Your task to perform on an android device: turn off data saver in the chrome app Image 0: 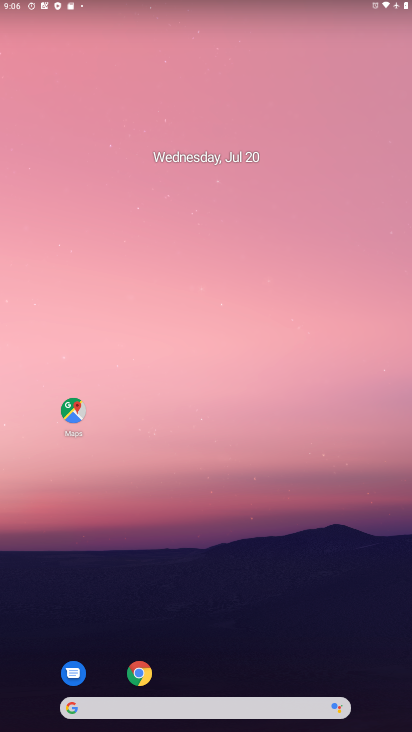
Step 0: drag from (224, 684) to (235, 38)
Your task to perform on an android device: turn off data saver in the chrome app Image 1: 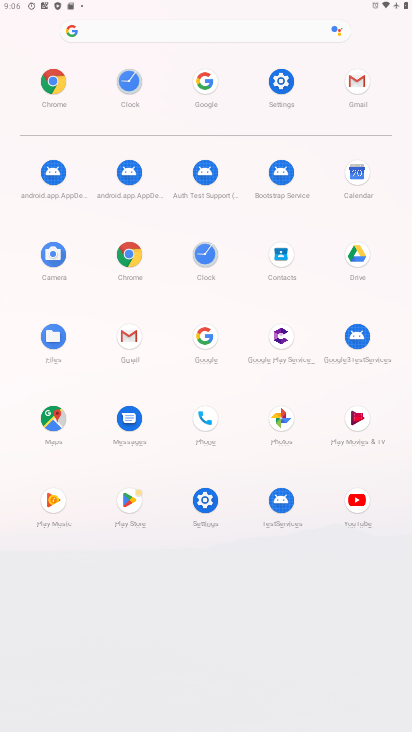
Step 1: click (127, 249)
Your task to perform on an android device: turn off data saver in the chrome app Image 2: 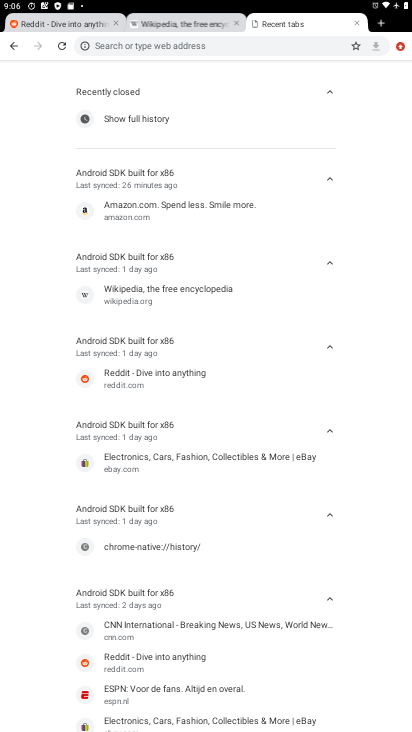
Step 2: click (399, 50)
Your task to perform on an android device: turn off data saver in the chrome app Image 3: 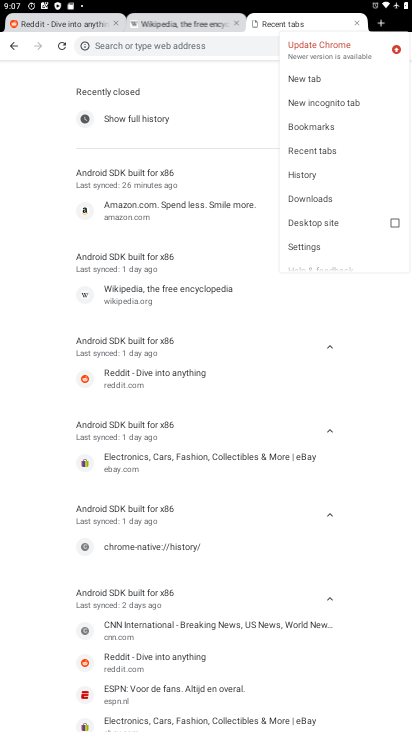
Step 3: click (304, 250)
Your task to perform on an android device: turn off data saver in the chrome app Image 4: 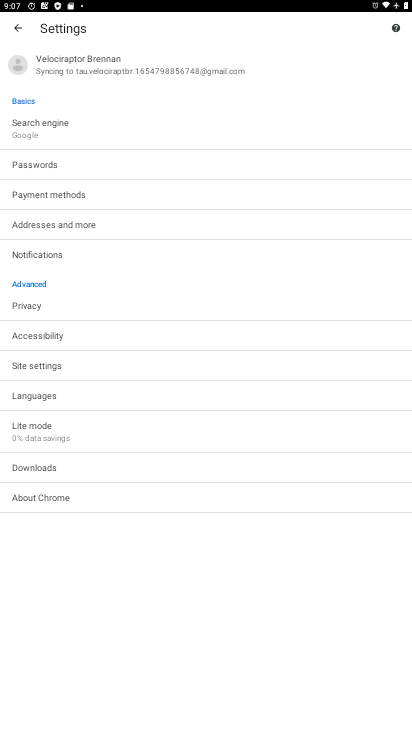
Step 4: click (53, 425)
Your task to perform on an android device: turn off data saver in the chrome app Image 5: 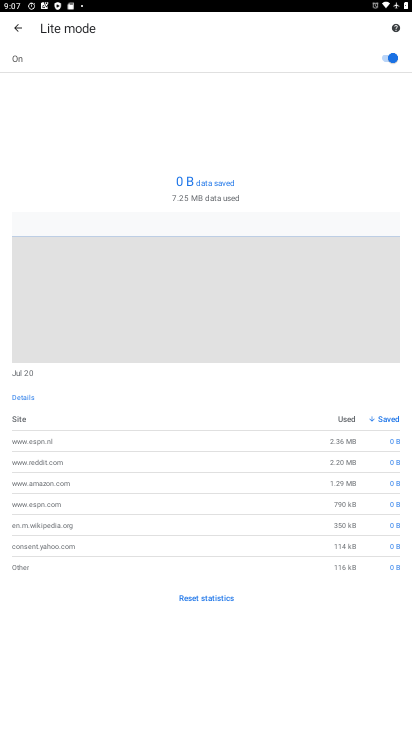
Step 5: click (386, 61)
Your task to perform on an android device: turn off data saver in the chrome app Image 6: 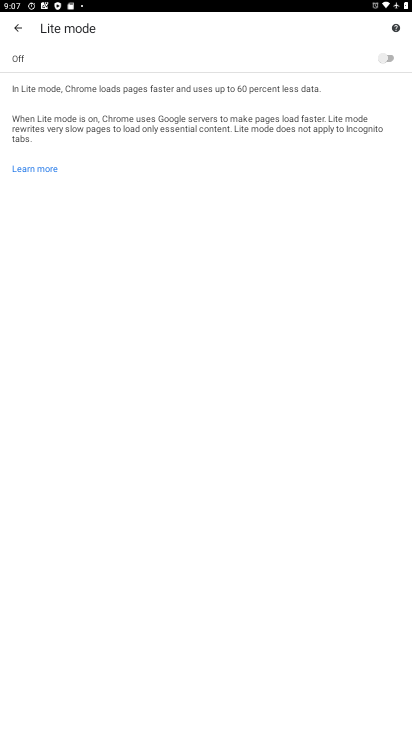
Step 6: task complete